Your task to perform on an android device: Show me popular videos on Youtube Image 0: 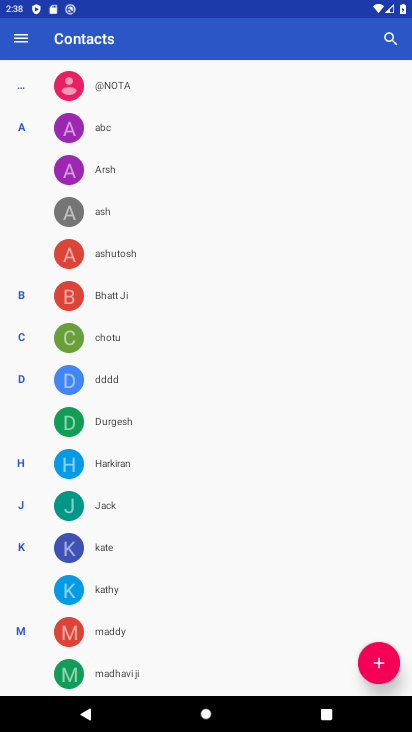
Step 0: press home button
Your task to perform on an android device: Show me popular videos on Youtube Image 1: 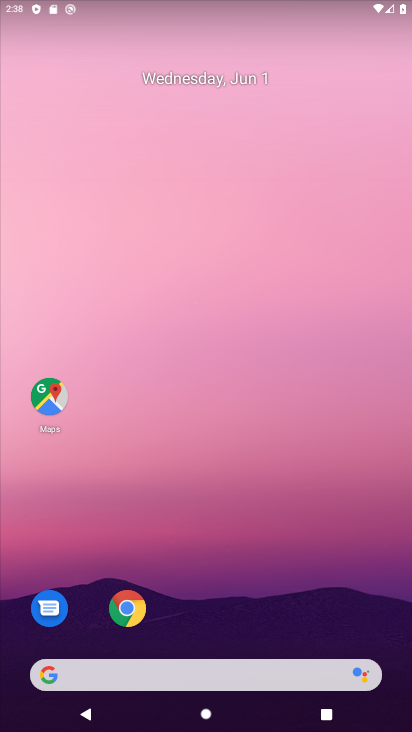
Step 1: drag from (173, 643) to (260, 130)
Your task to perform on an android device: Show me popular videos on Youtube Image 2: 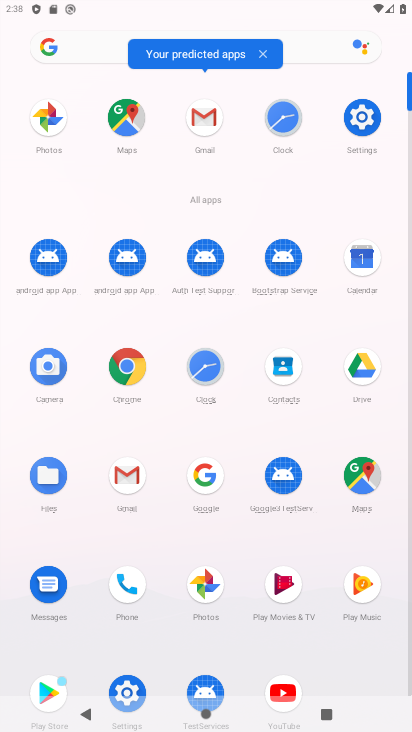
Step 2: drag from (175, 593) to (252, 415)
Your task to perform on an android device: Show me popular videos on Youtube Image 3: 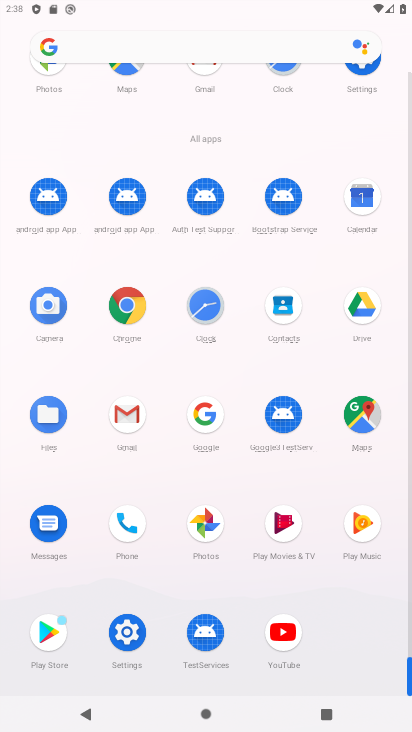
Step 3: click (291, 648)
Your task to perform on an android device: Show me popular videos on Youtube Image 4: 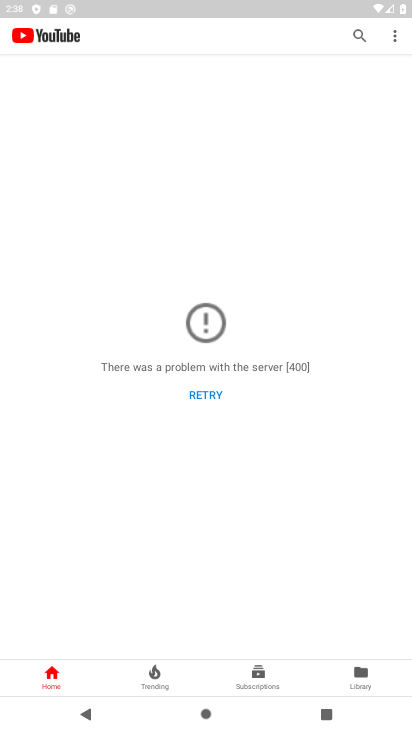
Step 4: task complete